Your task to perform on an android device: Clear the cart on ebay.com. Search for "alienware area 51" on ebay.com, select the first entry, add it to the cart, then select checkout. Image 0: 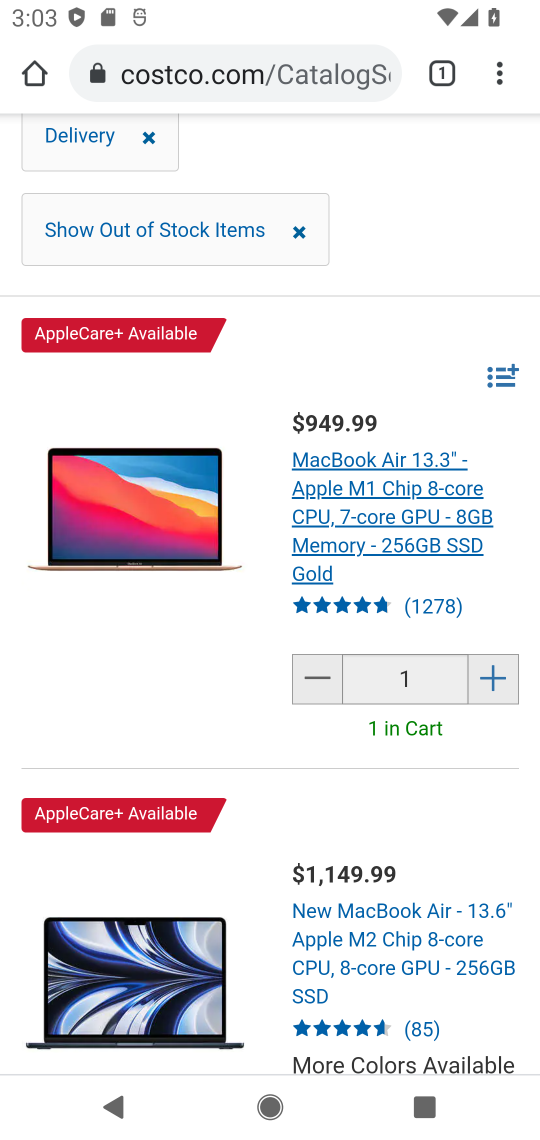
Step 0: press home button
Your task to perform on an android device: Clear the cart on ebay.com. Search for "alienware area 51" on ebay.com, select the first entry, add it to the cart, then select checkout. Image 1: 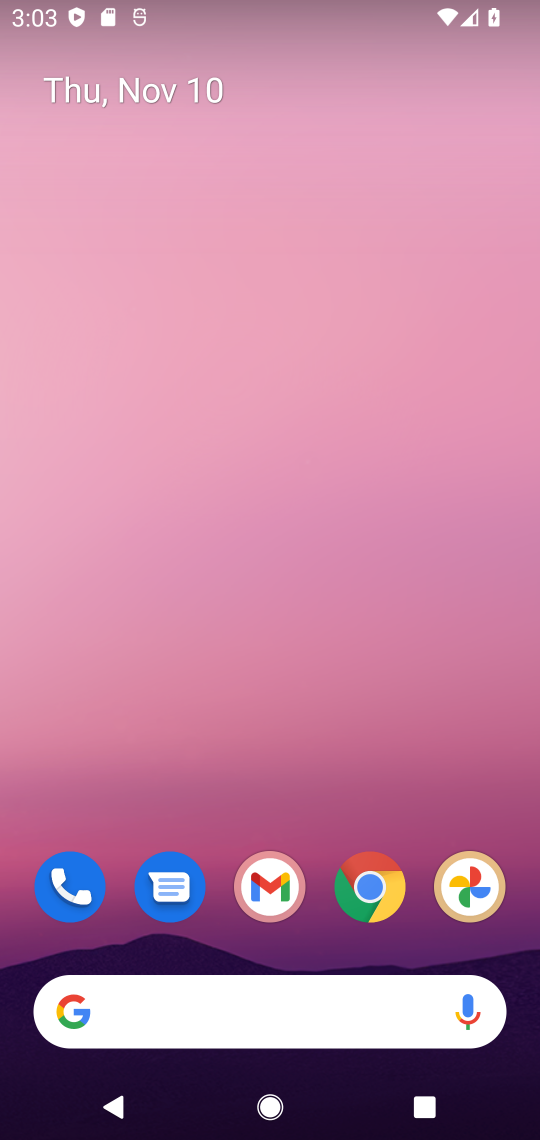
Step 1: drag from (313, 959) to (254, 30)
Your task to perform on an android device: Clear the cart on ebay.com. Search for "alienware area 51" on ebay.com, select the first entry, add it to the cart, then select checkout. Image 2: 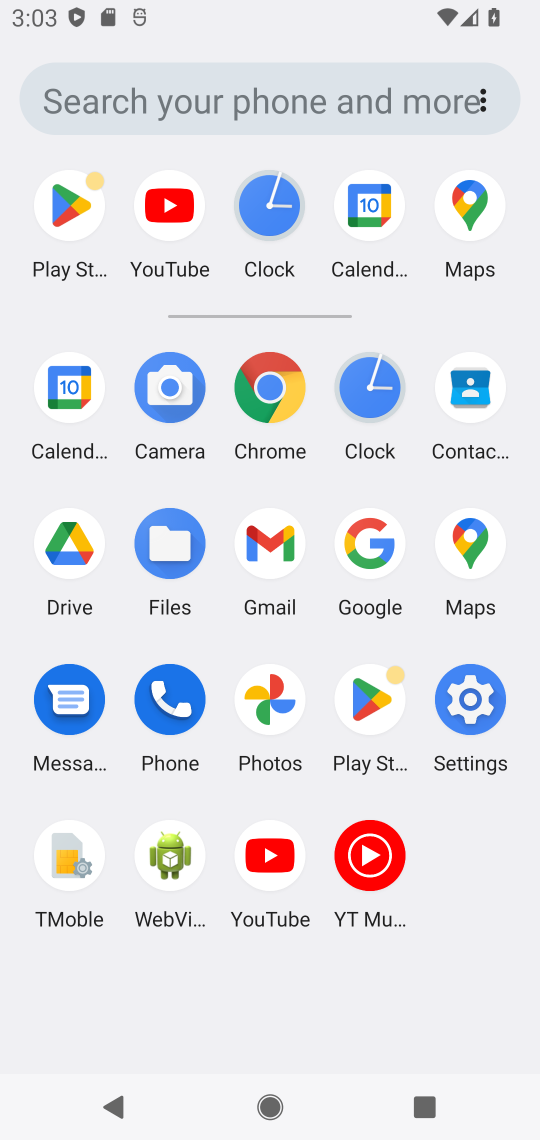
Step 2: click (271, 382)
Your task to perform on an android device: Clear the cart on ebay.com. Search for "alienware area 51" on ebay.com, select the first entry, add it to the cart, then select checkout. Image 3: 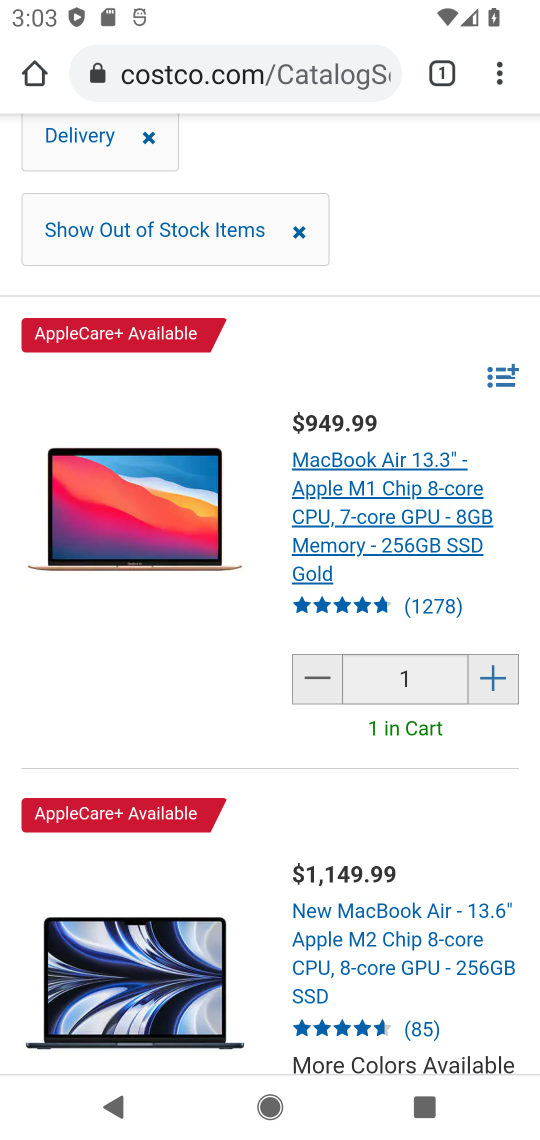
Step 3: click (315, 70)
Your task to perform on an android device: Clear the cart on ebay.com. Search for "alienware area 51" on ebay.com, select the first entry, add it to the cart, then select checkout. Image 4: 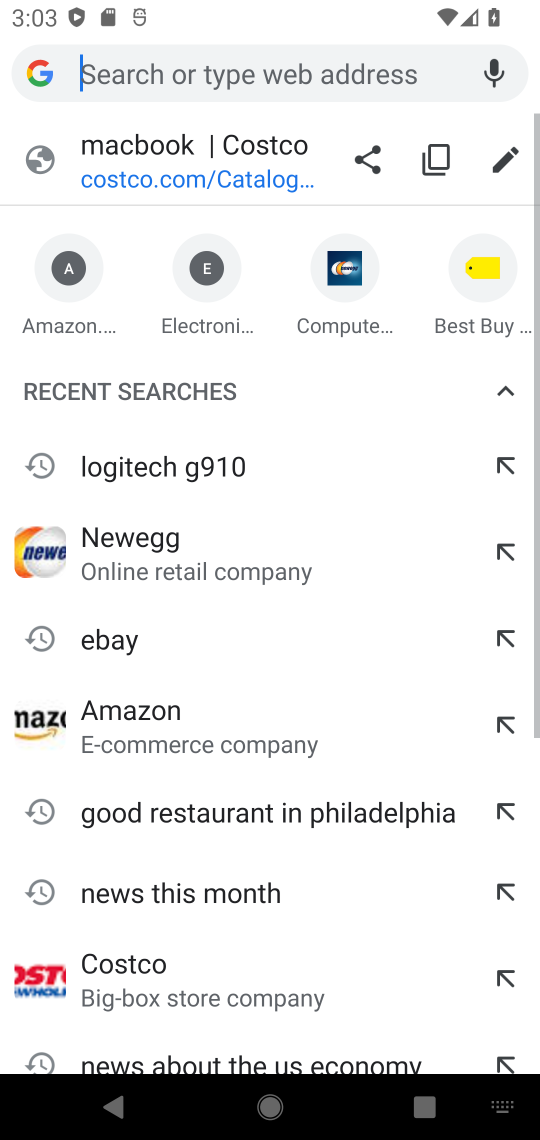
Step 4: type "ebay.como"
Your task to perform on an android device: Clear the cart on ebay.com. Search for "alienware area 51" on ebay.com, select the first entry, add it to the cart, then select checkout. Image 5: 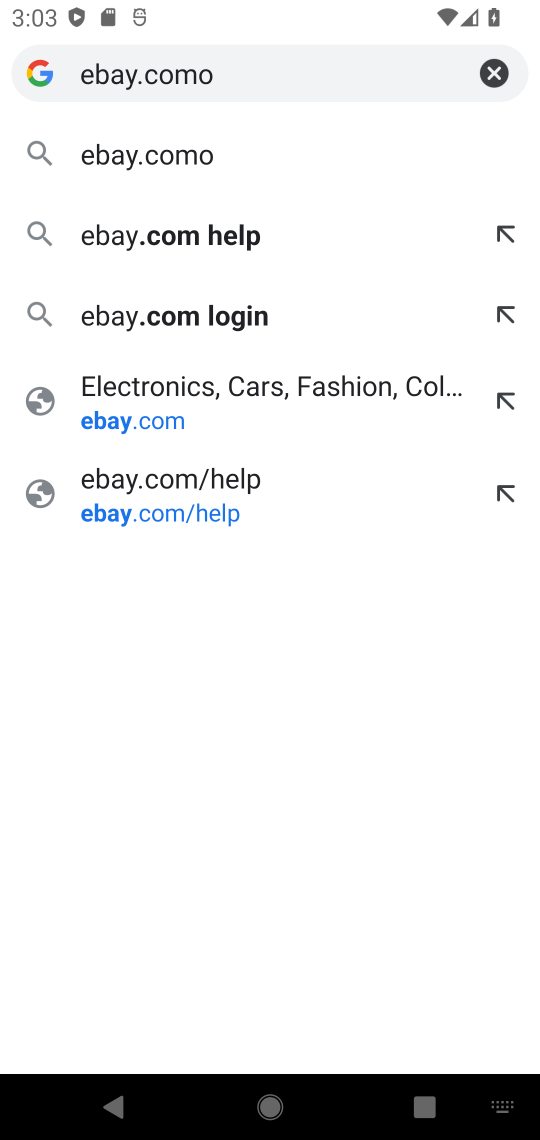
Step 5: click (151, 420)
Your task to perform on an android device: Clear the cart on ebay.com. Search for "alienware area 51" on ebay.com, select the first entry, add it to the cart, then select checkout. Image 6: 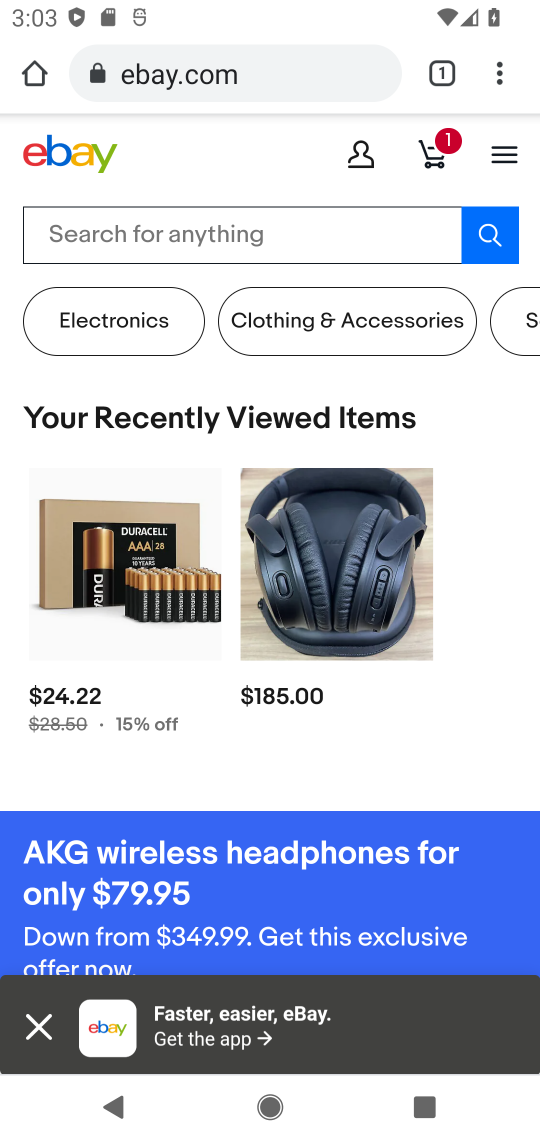
Step 6: click (283, 235)
Your task to perform on an android device: Clear the cart on ebay.com. Search for "alienware area 51" on ebay.com, select the first entry, add it to the cart, then select checkout. Image 7: 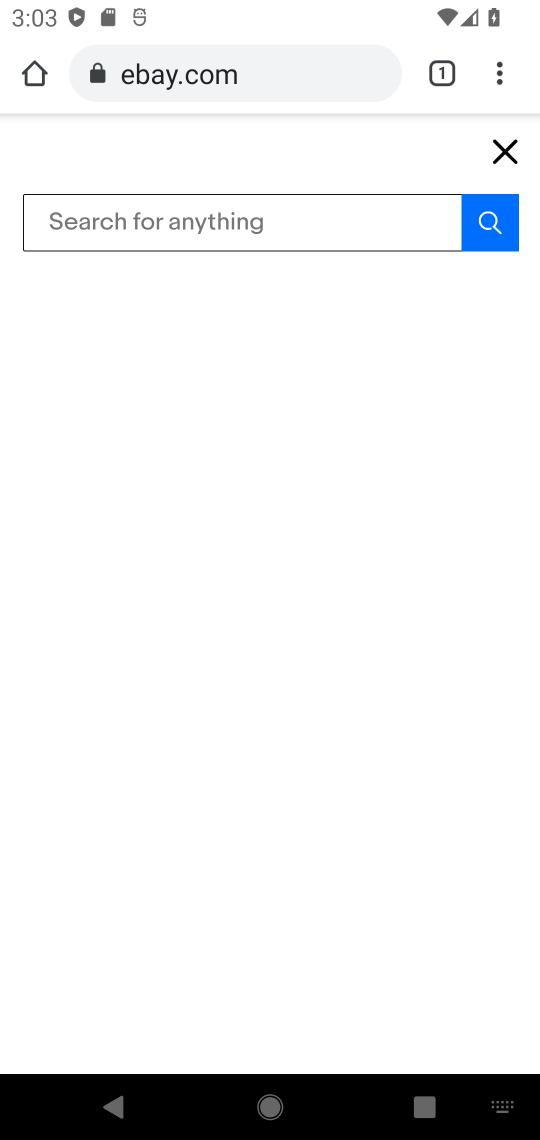
Step 7: click (507, 140)
Your task to perform on an android device: Clear the cart on ebay.com. Search for "alienware area 51" on ebay.com, select the first entry, add it to the cart, then select checkout. Image 8: 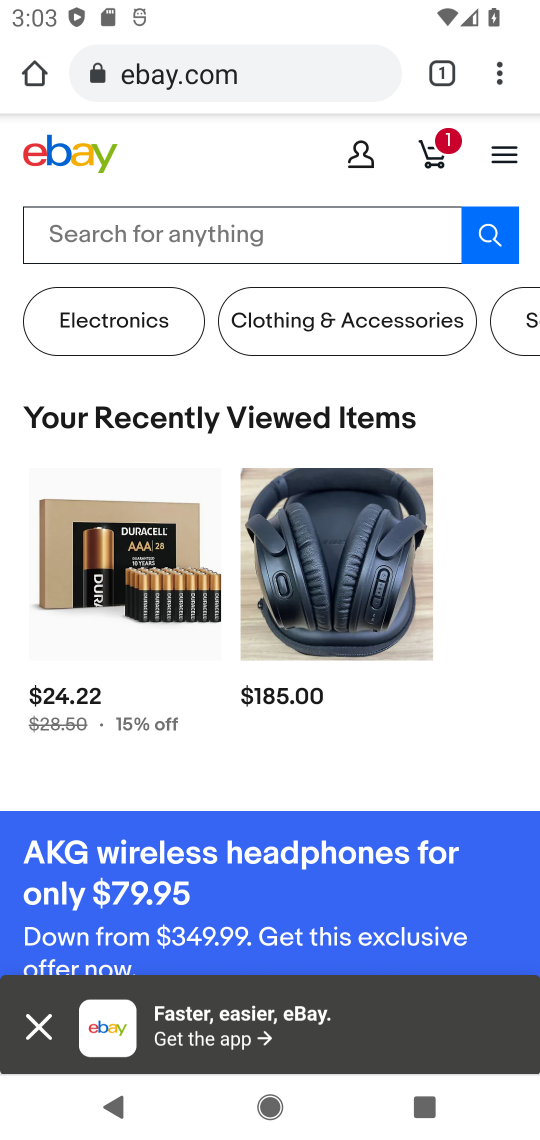
Step 8: click (417, 167)
Your task to perform on an android device: Clear the cart on ebay.com. Search for "alienware area 51" on ebay.com, select the first entry, add it to the cart, then select checkout. Image 9: 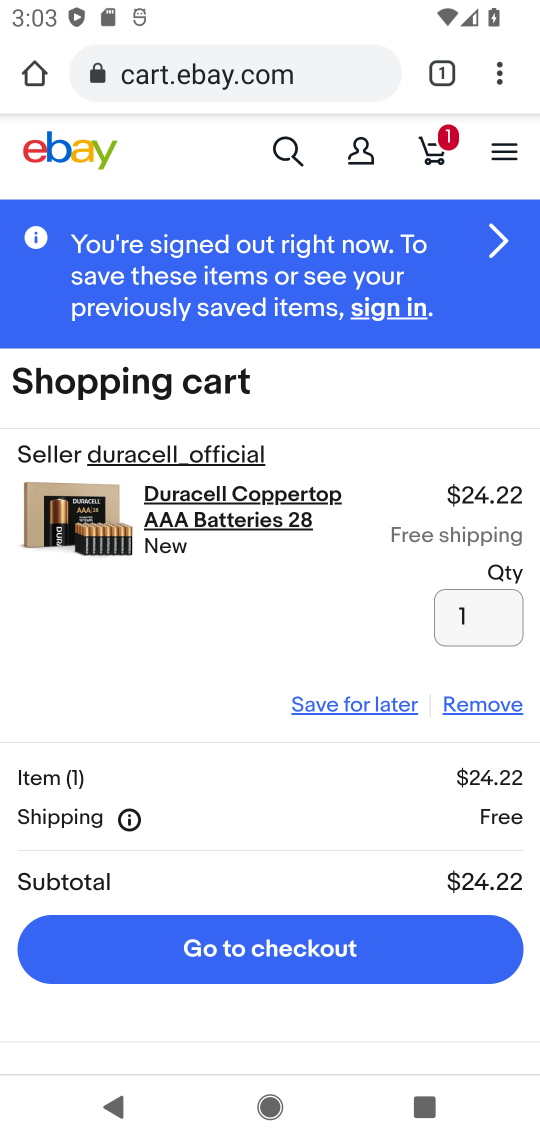
Step 9: click (494, 705)
Your task to perform on an android device: Clear the cart on ebay.com. Search for "alienware area 51" on ebay.com, select the first entry, add it to the cart, then select checkout. Image 10: 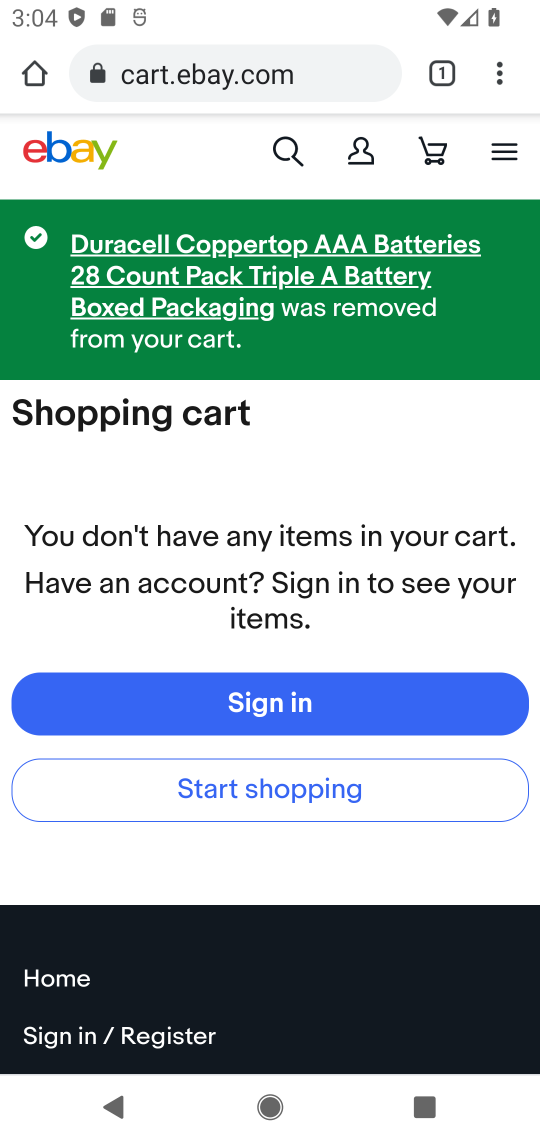
Step 10: click (286, 154)
Your task to perform on an android device: Clear the cart on ebay.com. Search for "alienware area 51" on ebay.com, select the first entry, add it to the cart, then select checkout. Image 11: 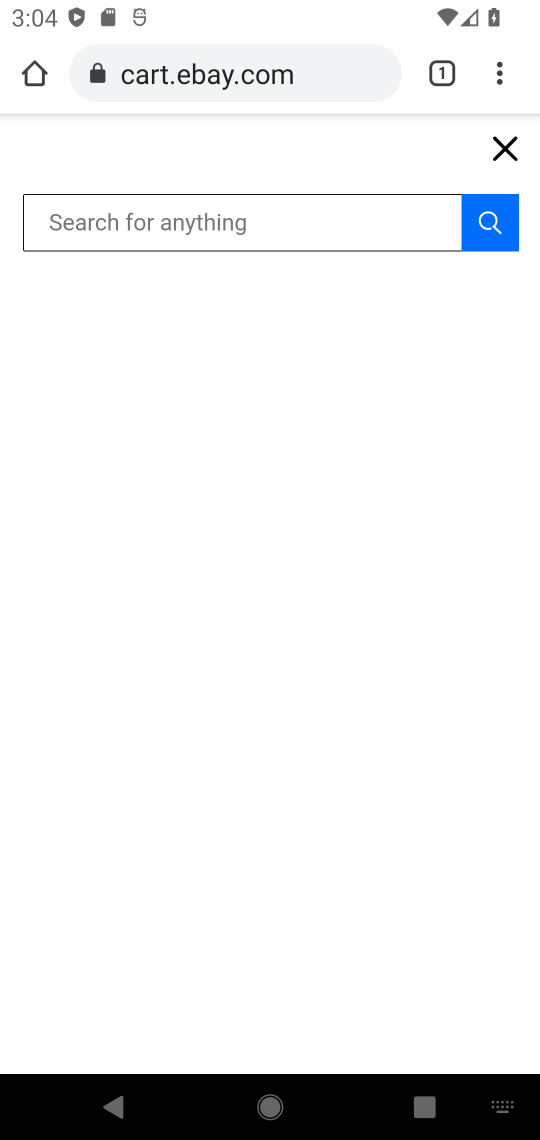
Step 11: type "alienware area 51"
Your task to perform on an android device: Clear the cart on ebay.com. Search for "alienware area 51" on ebay.com, select the first entry, add it to the cart, then select checkout. Image 12: 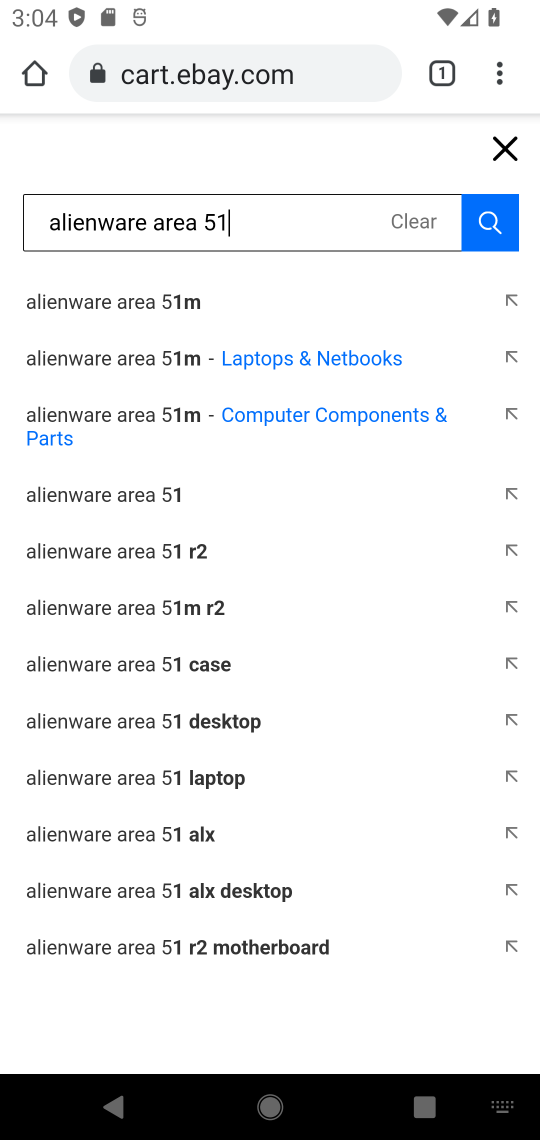
Step 12: press enter
Your task to perform on an android device: Clear the cart on ebay.com. Search for "alienware area 51" on ebay.com, select the first entry, add it to the cart, then select checkout. Image 13: 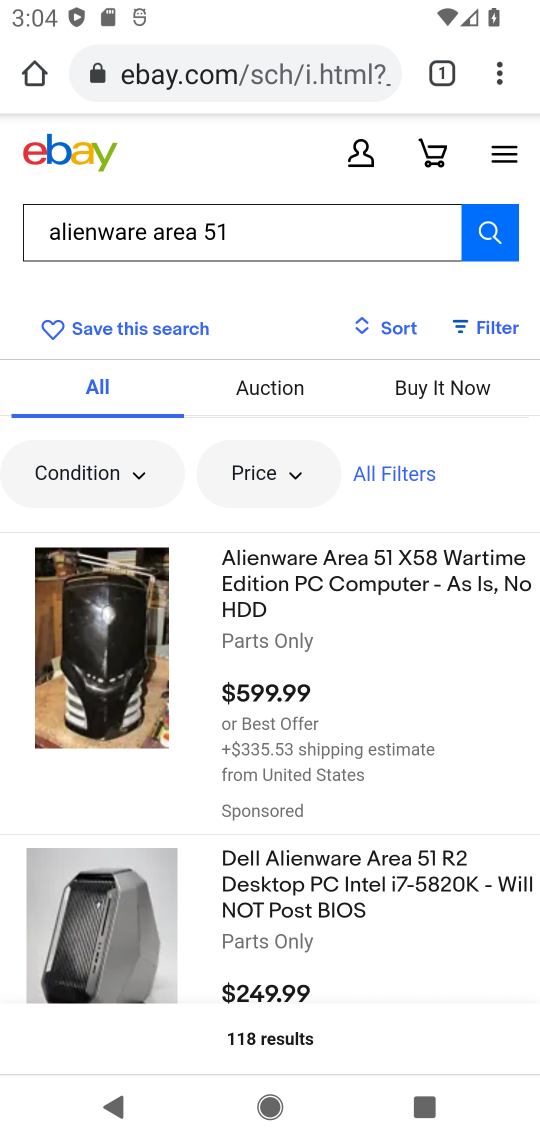
Step 13: click (322, 582)
Your task to perform on an android device: Clear the cart on ebay.com. Search for "alienware area 51" on ebay.com, select the first entry, add it to the cart, then select checkout. Image 14: 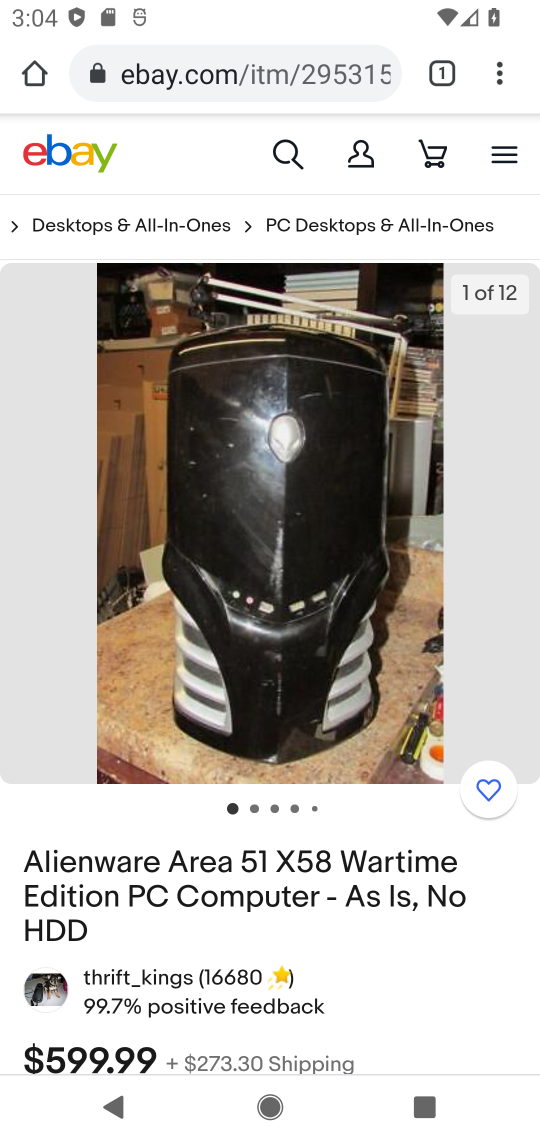
Step 14: drag from (293, 870) to (261, 100)
Your task to perform on an android device: Clear the cart on ebay.com. Search for "alienware area 51" on ebay.com, select the first entry, add it to the cart, then select checkout. Image 15: 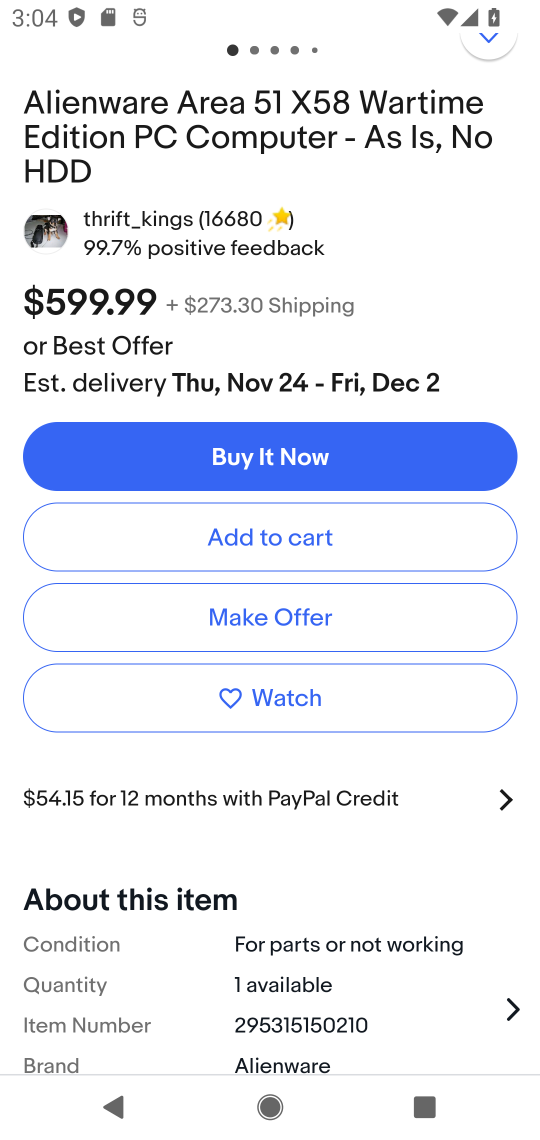
Step 15: click (345, 552)
Your task to perform on an android device: Clear the cart on ebay.com. Search for "alienware area 51" on ebay.com, select the first entry, add it to the cart, then select checkout. Image 16: 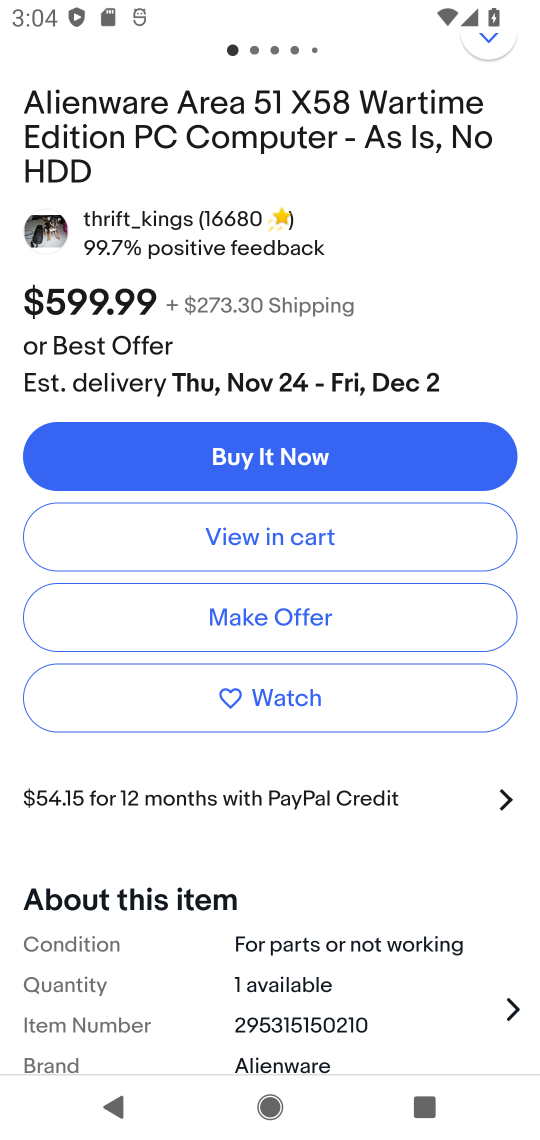
Step 16: click (340, 542)
Your task to perform on an android device: Clear the cart on ebay.com. Search for "alienware area 51" on ebay.com, select the first entry, add it to the cart, then select checkout. Image 17: 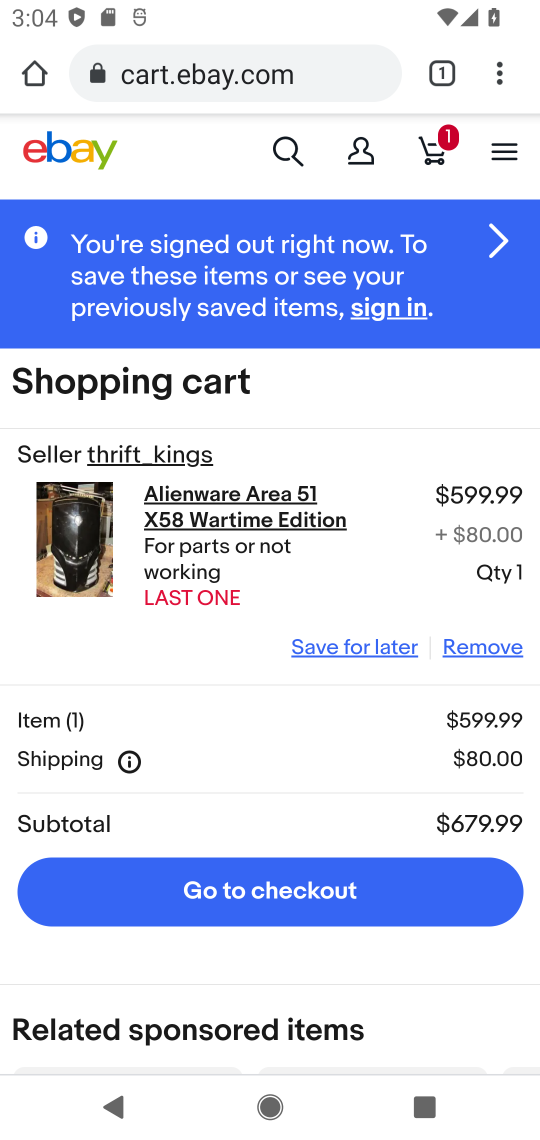
Step 17: click (279, 898)
Your task to perform on an android device: Clear the cart on ebay.com. Search for "alienware area 51" on ebay.com, select the first entry, add it to the cart, then select checkout. Image 18: 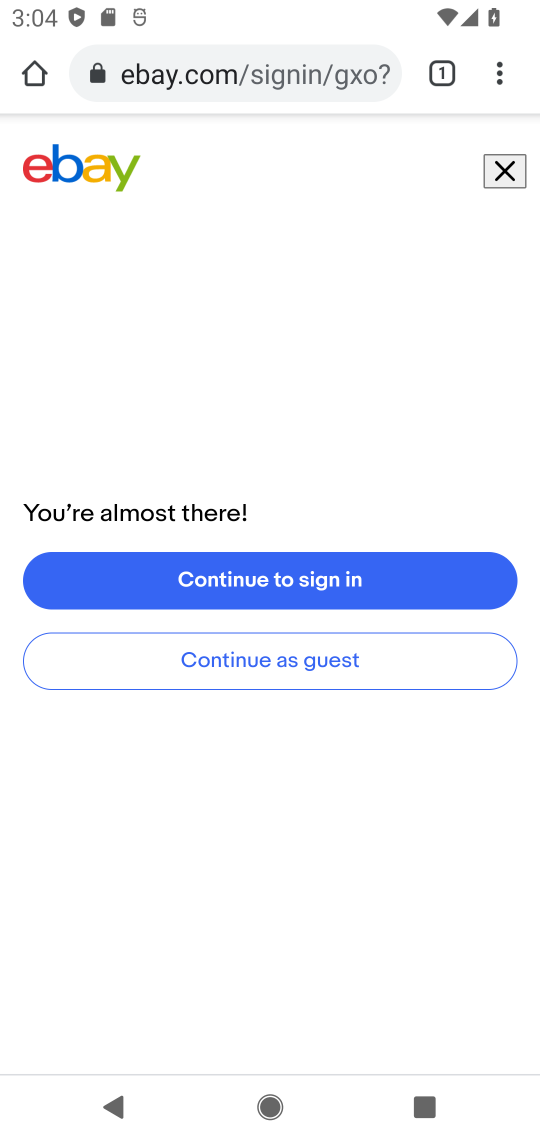
Step 18: task complete